Your task to perform on an android device: Open the gallery Image 0: 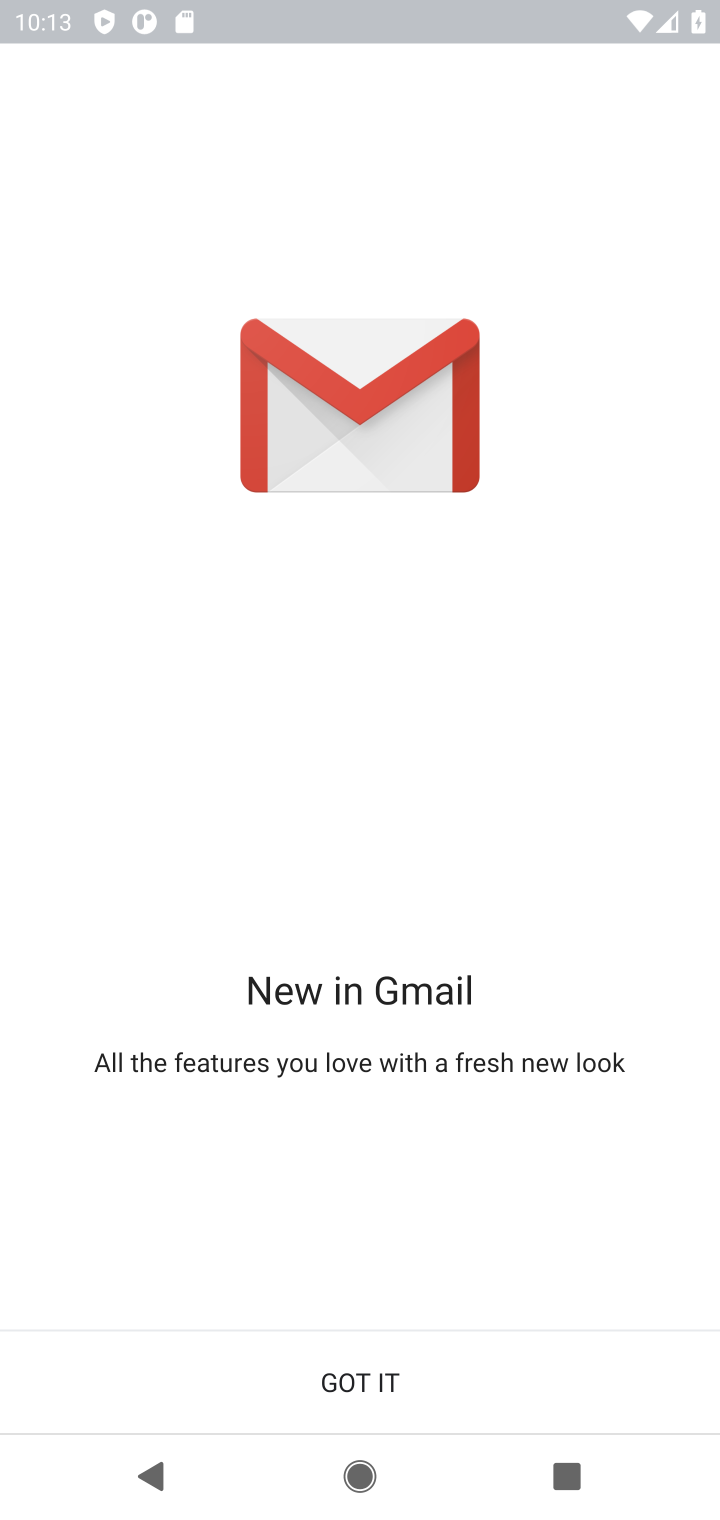
Step 0: click (371, 1333)
Your task to perform on an android device: Open the gallery Image 1: 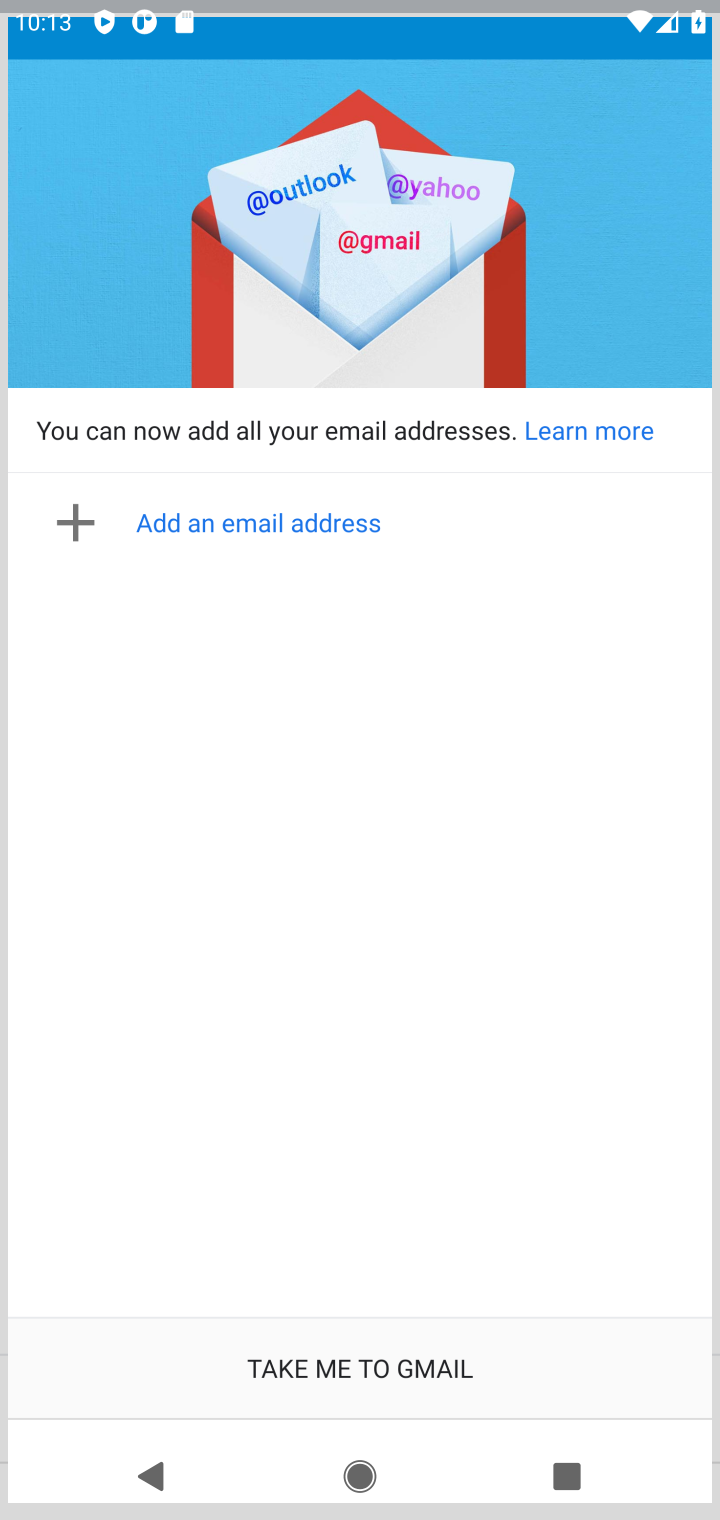
Step 1: task complete